Your task to perform on an android device: Open eBay Image 0: 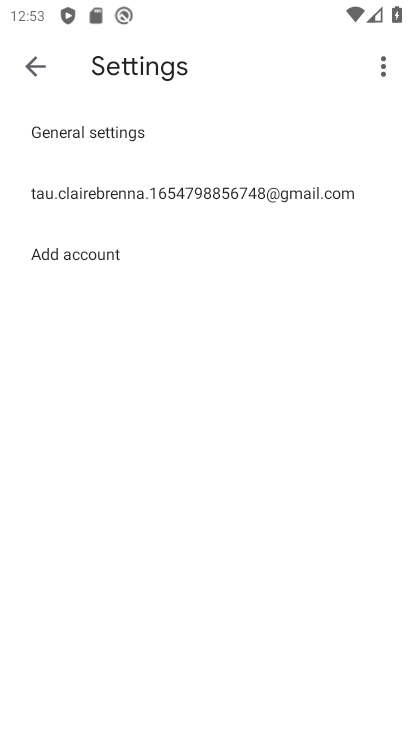
Step 0: press home button
Your task to perform on an android device: Open eBay Image 1: 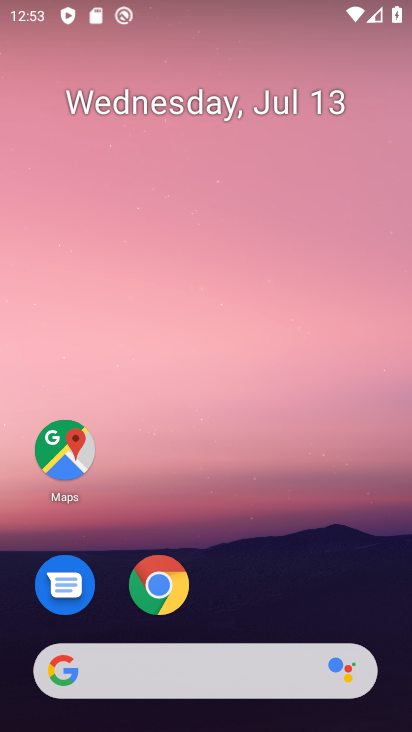
Step 1: click (166, 591)
Your task to perform on an android device: Open eBay Image 2: 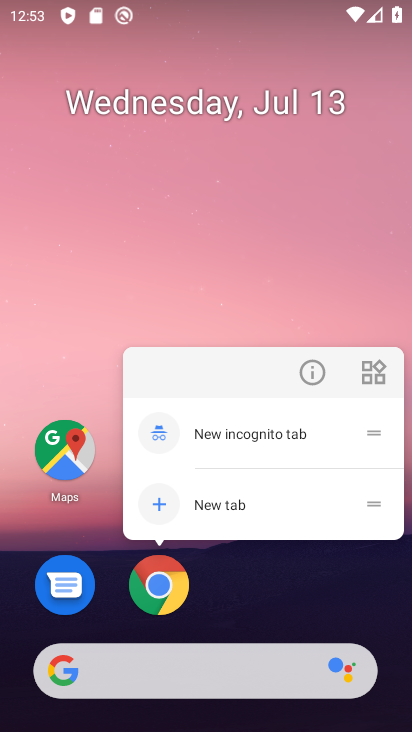
Step 2: click (166, 592)
Your task to perform on an android device: Open eBay Image 3: 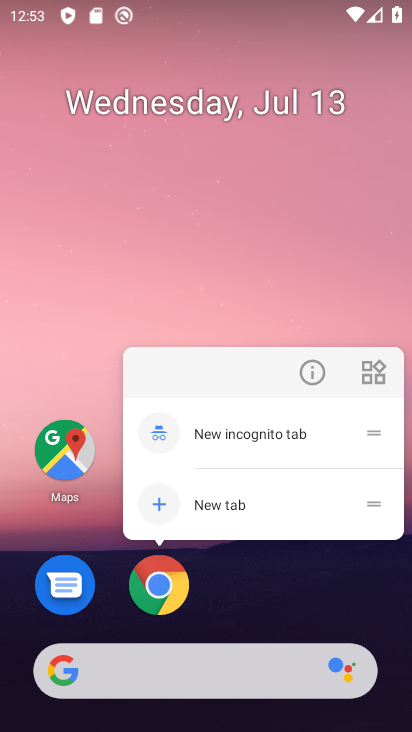
Step 3: click (165, 588)
Your task to perform on an android device: Open eBay Image 4: 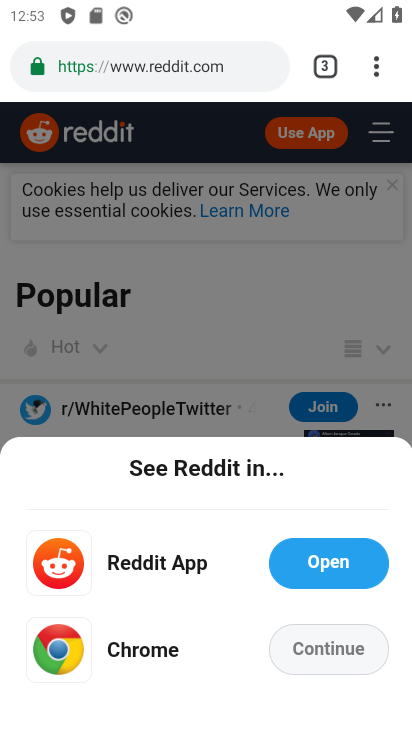
Step 4: drag from (371, 68) to (213, 129)
Your task to perform on an android device: Open eBay Image 5: 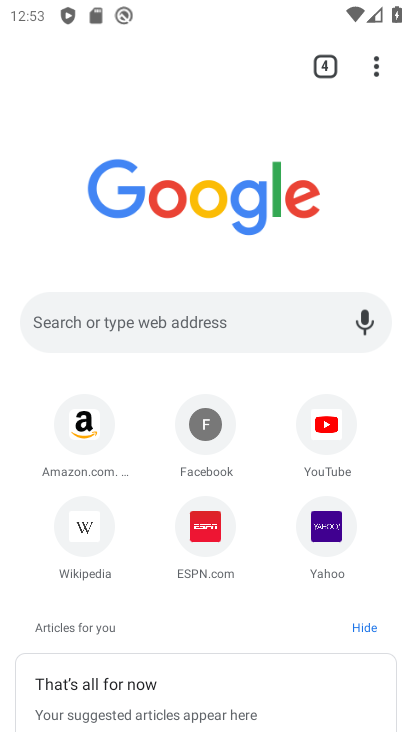
Step 5: click (153, 312)
Your task to perform on an android device: Open eBay Image 6: 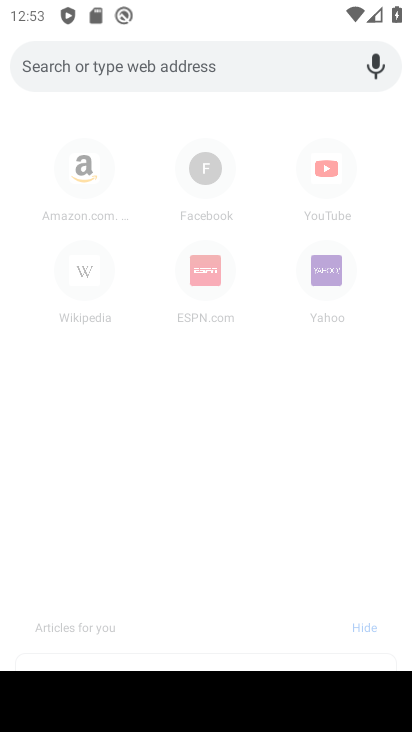
Step 6: type "ebay"
Your task to perform on an android device: Open eBay Image 7: 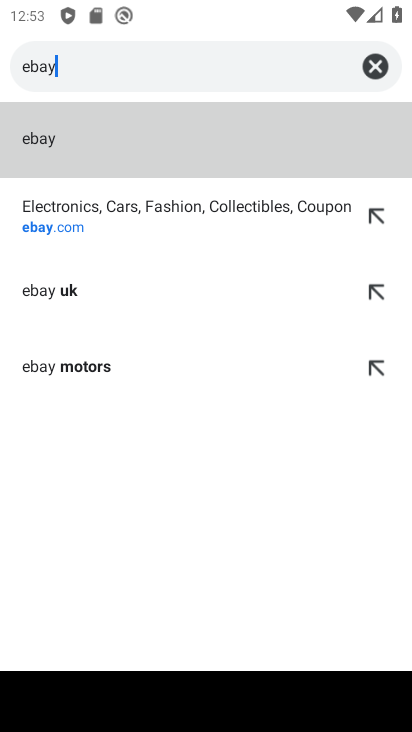
Step 7: click (226, 209)
Your task to perform on an android device: Open eBay Image 8: 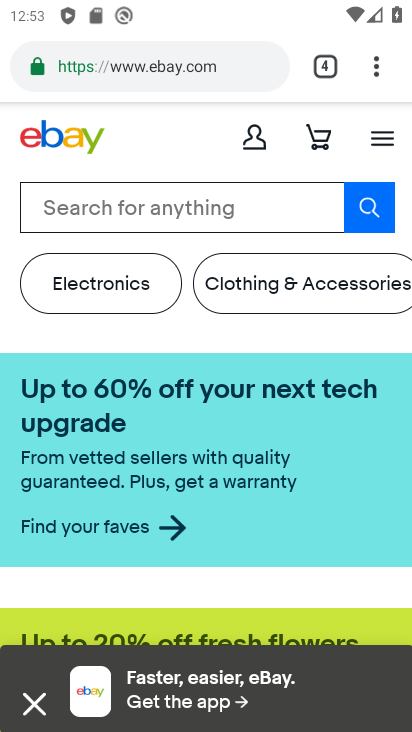
Step 8: task complete